Your task to perform on an android device: toggle pop-ups in chrome Image 0: 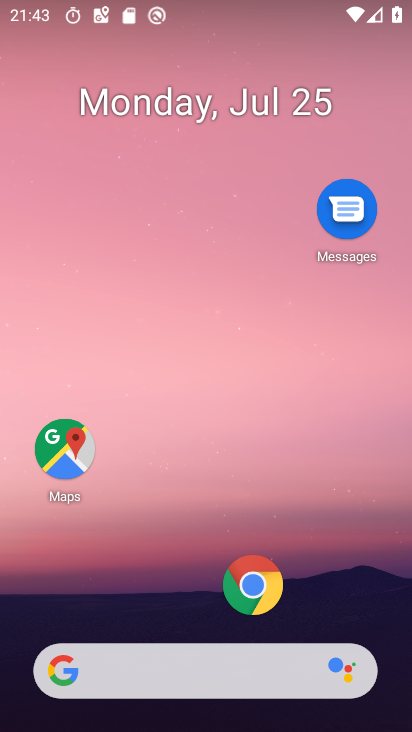
Step 0: click (251, 592)
Your task to perform on an android device: toggle pop-ups in chrome Image 1: 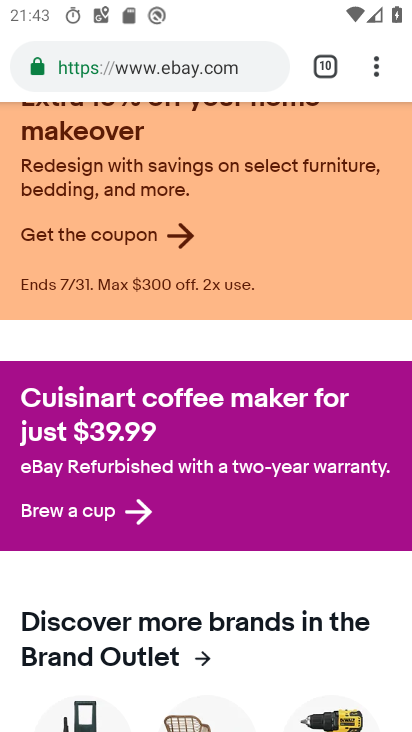
Step 1: drag from (377, 65) to (224, 577)
Your task to perform on an android device: toggle pop-ups in chrome Image 2: 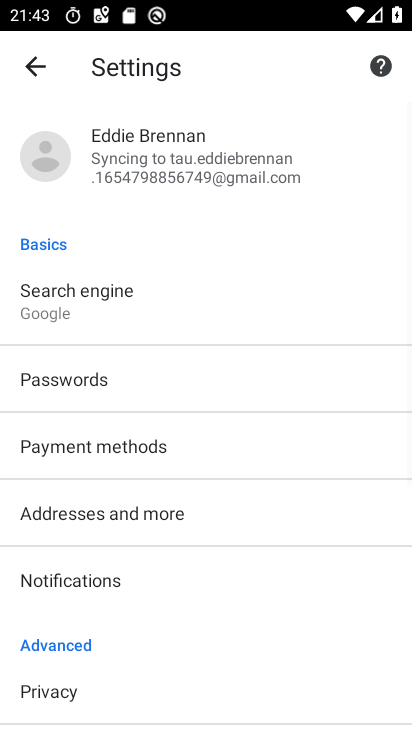
Step 2: drag from (164, 643) to (220, 335)
Your task to perform on an android device: toggle pop-ups in chrome Image 3: 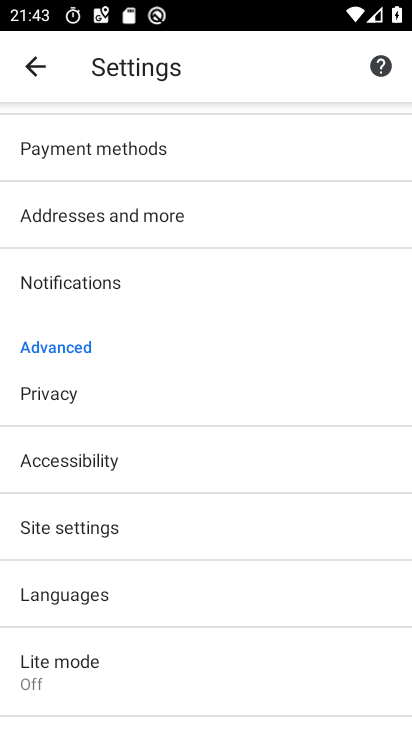
Step 3: click (106, 531)
Your task to perform on an android device: toggle pop-ups in chrome Image 4: 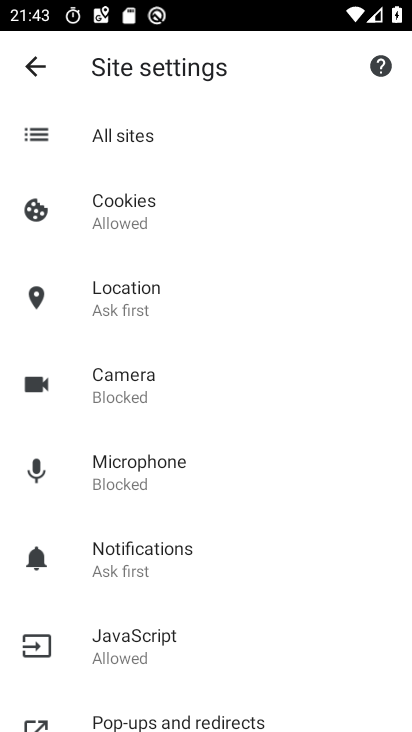
Step 4: drag from (244, 642) to (248, 438)
Your task to perform on an android device: toggle pop-ups in chrome Image 5: 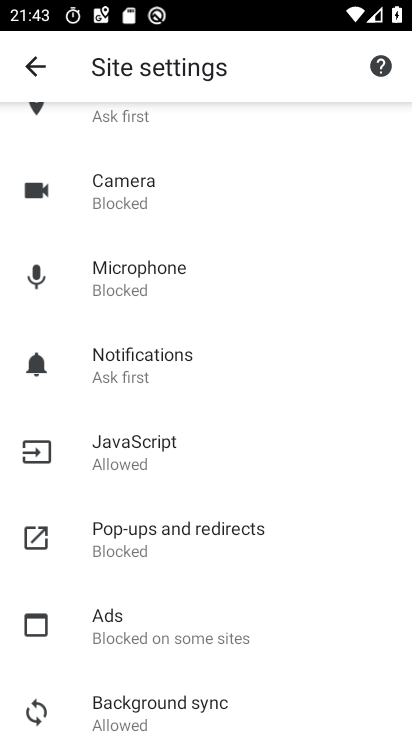
Step 5: click (172, 543)
Your task to perform on an android device: toggle pop-ups in chrome Image 6: 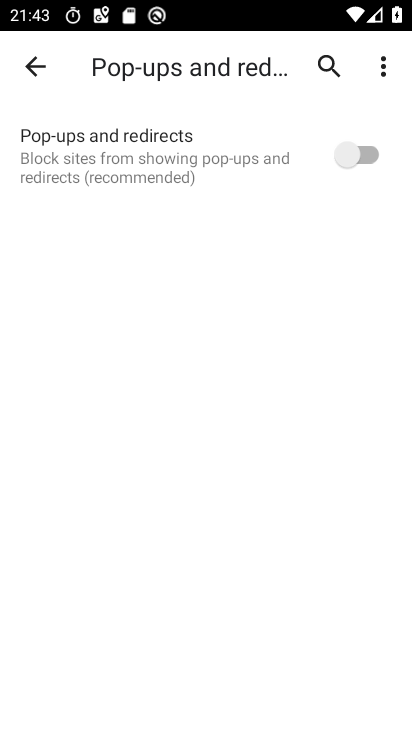
Step 6: click (359, 151)
Your task to perform on an android device: toggle pop-ups in chrome Image 7: 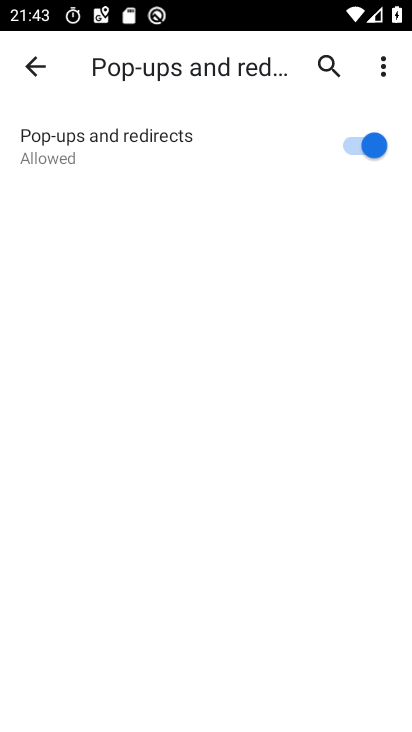
Step 7: task complete